Your task to perform on an android device: change the clock style Image 0: 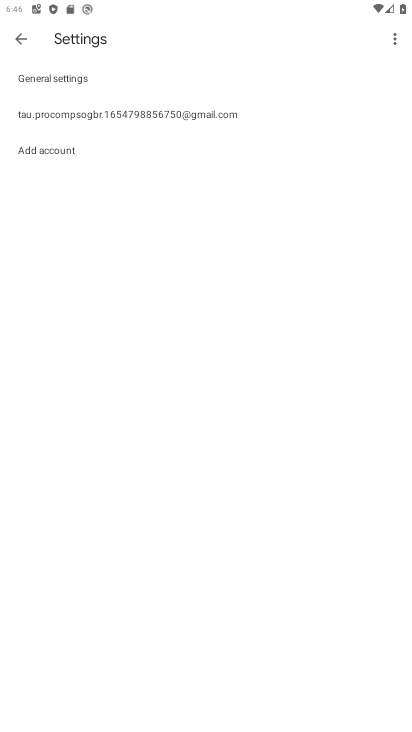
Step 0: press home button
Your task to perform on an android device: change the clock style Image 1: 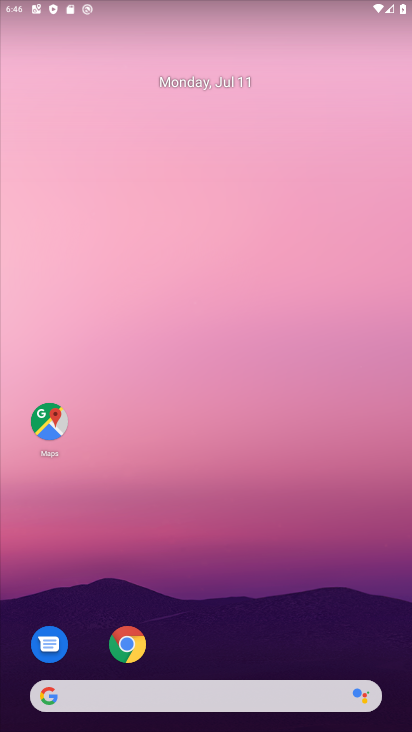
Step 1: drag from (298, 714) to (351, 41)
Your task to perform on an android device: change the clock style Image 2: 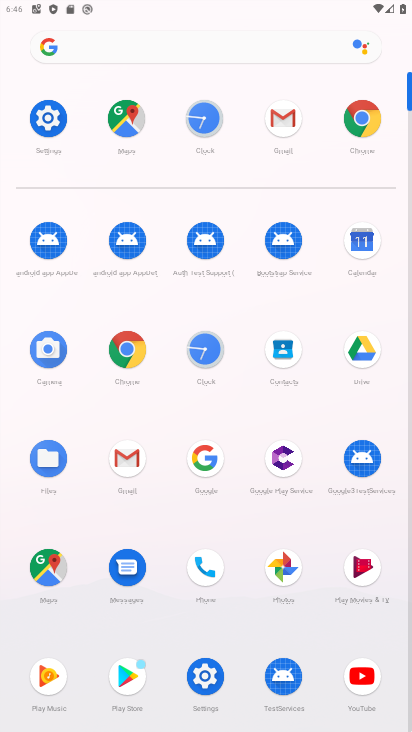
Step 2: click (207, 353)
Your task to perform on an android device: change the clock style Image 3: 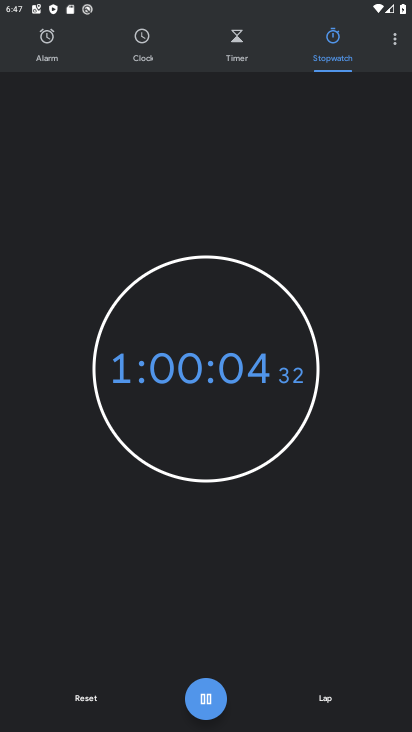
Step 3: click (399, 38)
Your task to perform on an android device: change the clock style Image 4: 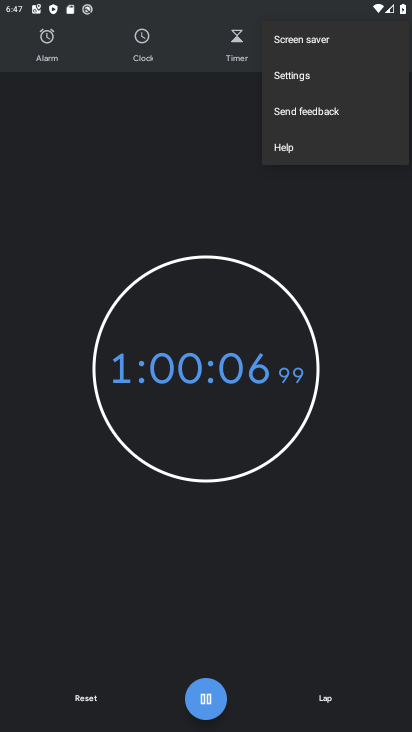
Step 4: click (302, 79)
Your task to perform on an android device: change the clock style Image 5: 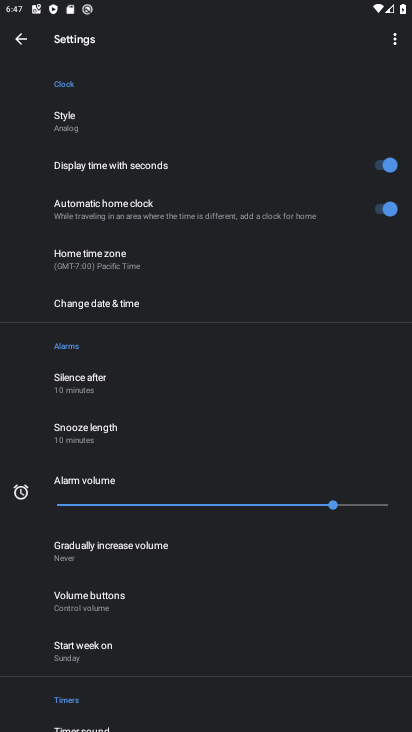
Step 5: click (94, 126)
Your task to perform on an android device: change the clock style Image 6: 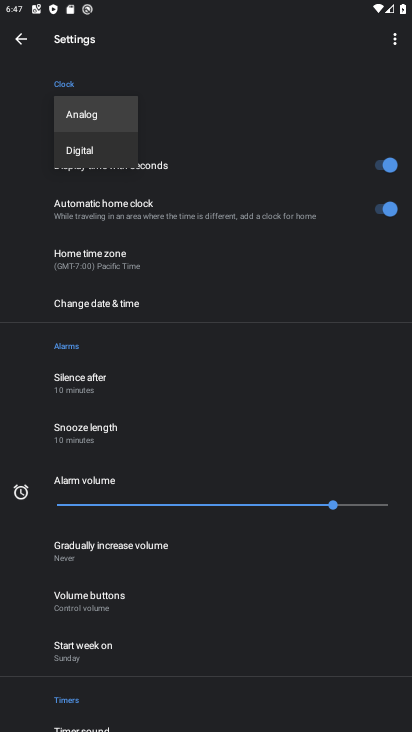
Step 6: click (84, 164)
Your task to perform on an android device: change the clock style Image 7: 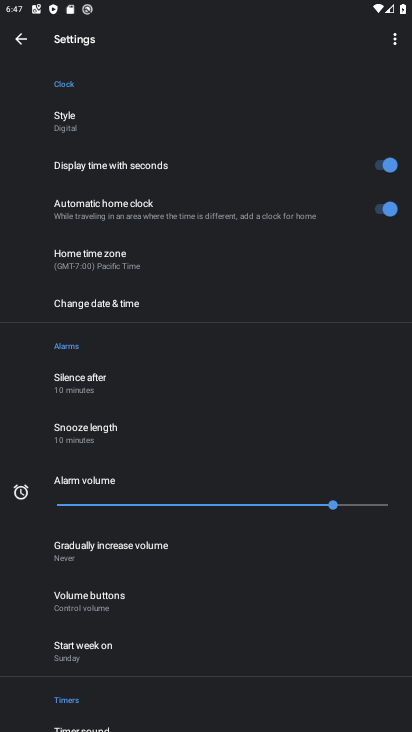
Step 7: task complete